Your task to perform on an android device: Look up the best rated headphones on Walmart. Image 0: 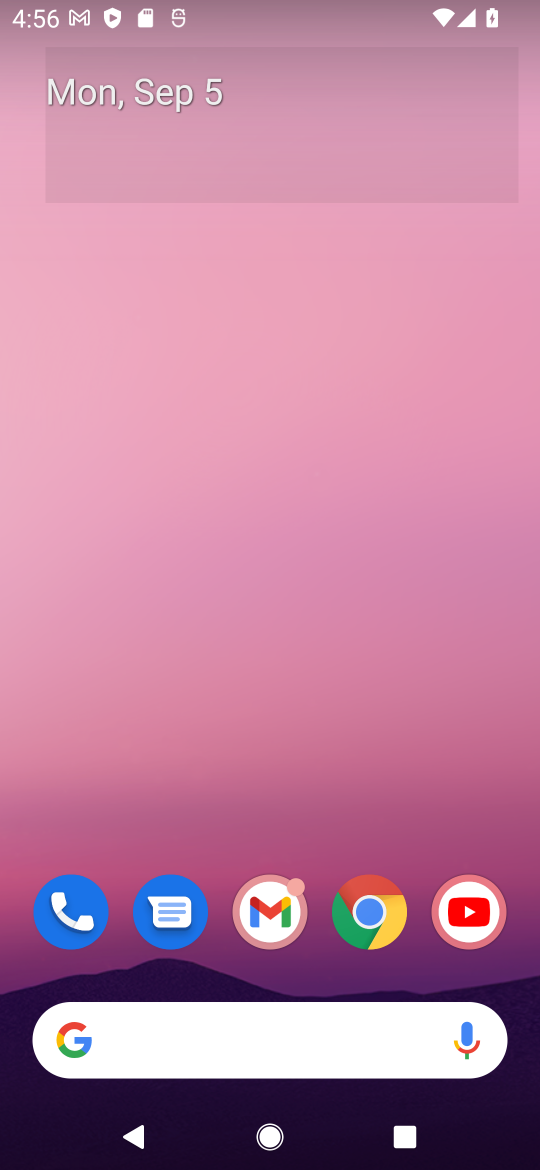
Step 0: click (399, 910)
Your task to perform on an android device: Look up the best rated headphones on Walmart. Image 1: 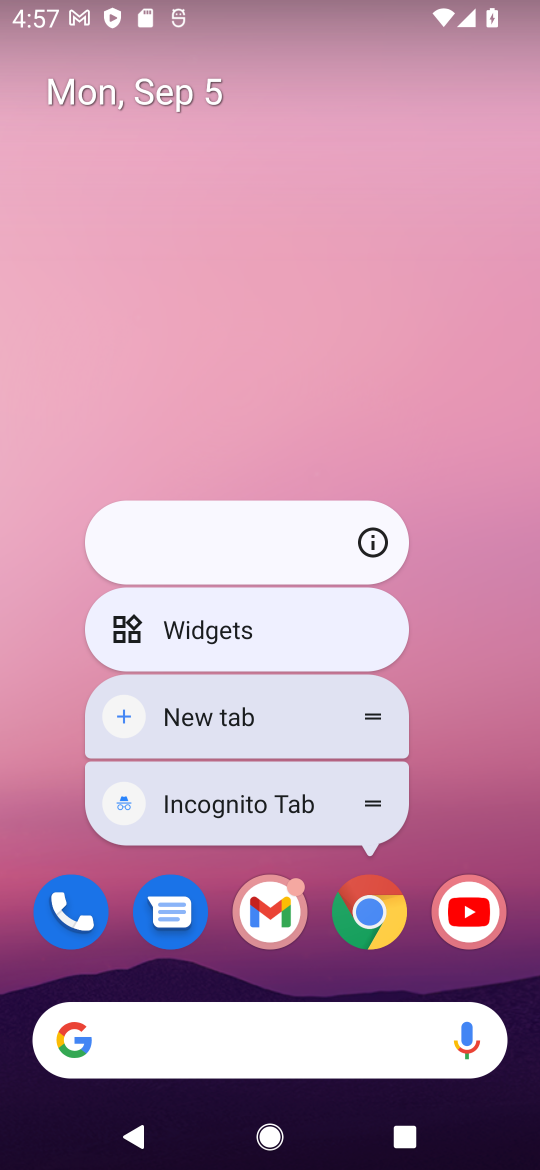
Step 1: click (365, 933)
Your task to perform on an android device: Look up the best rated headphones on Walmart. Image 2: 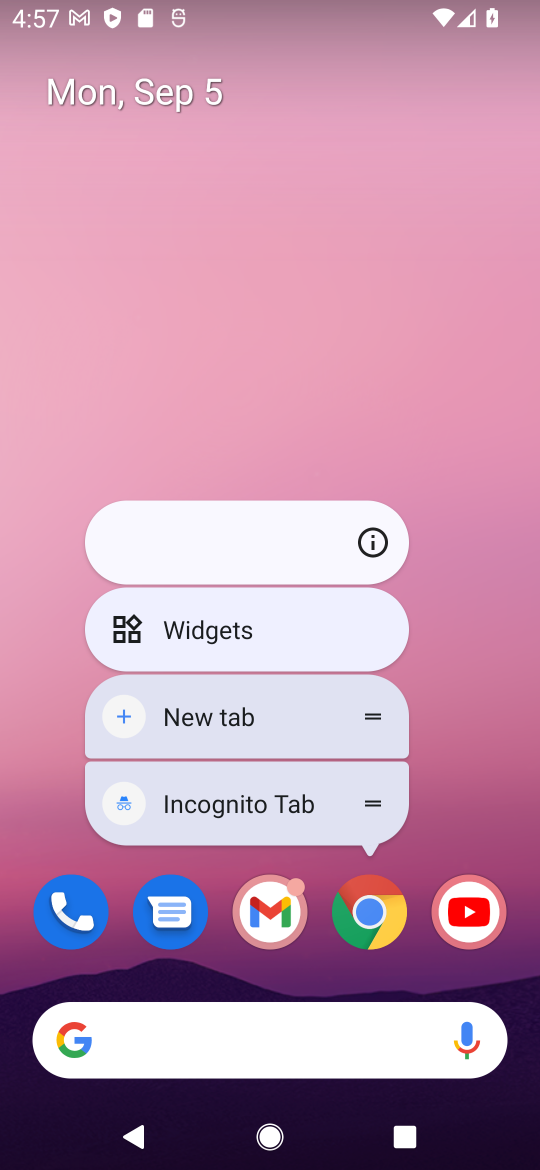
Step 2: click (383, 914)
Your task to perform on an android device: Look up the best rated headphones on Walmart. Image 3: 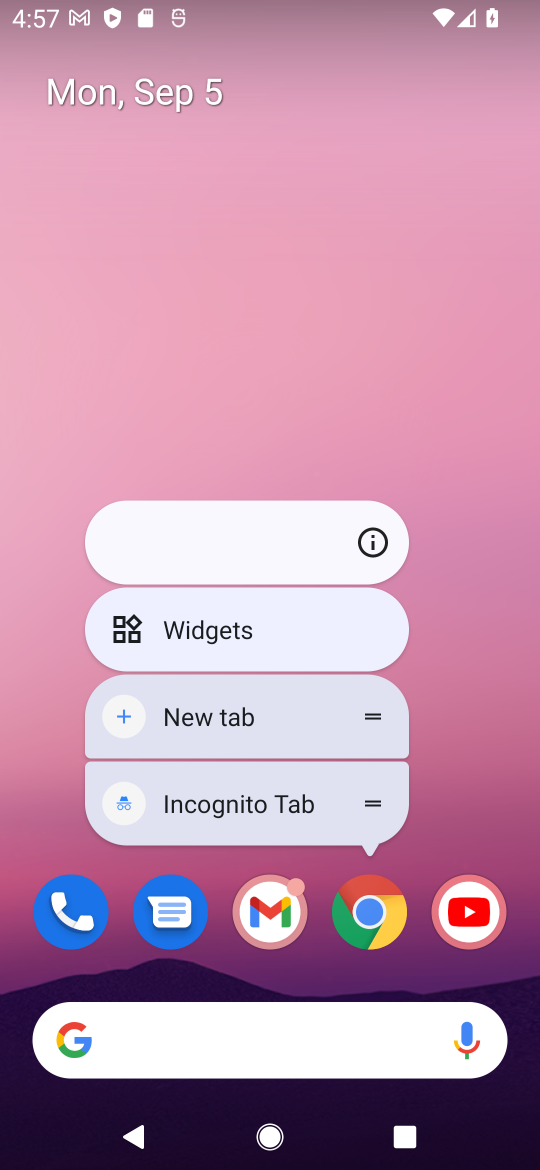
Step 3: click (371, 922)
Your task to perform on an android device: Look up the best rated headphones on Walmart. Image 4: 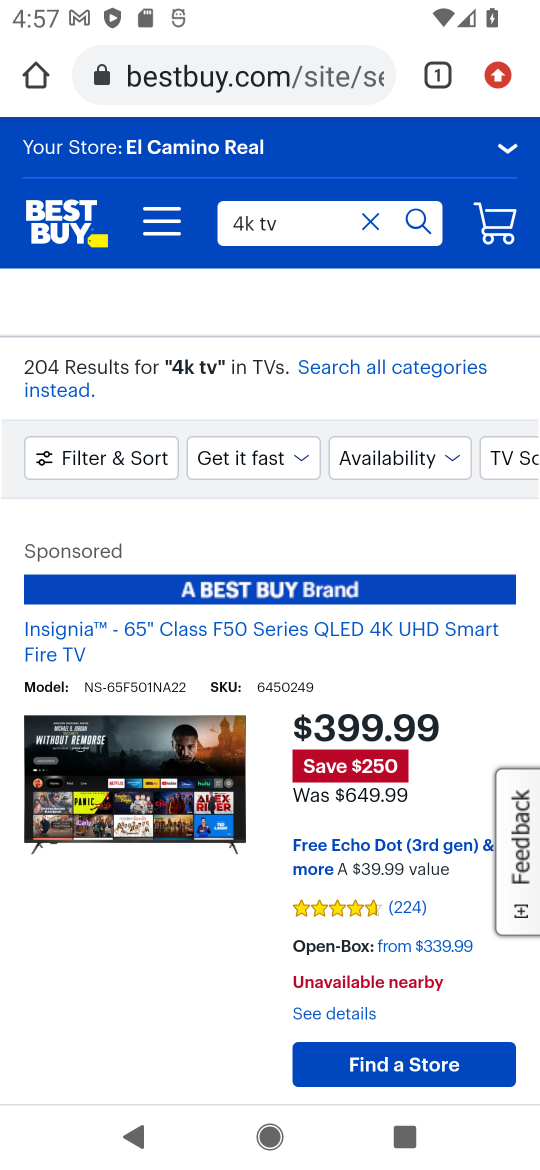
Step 4: click (297, 55)
Your task to perform on an android device: Look up the best rated headphones on Walmart. Image 5: 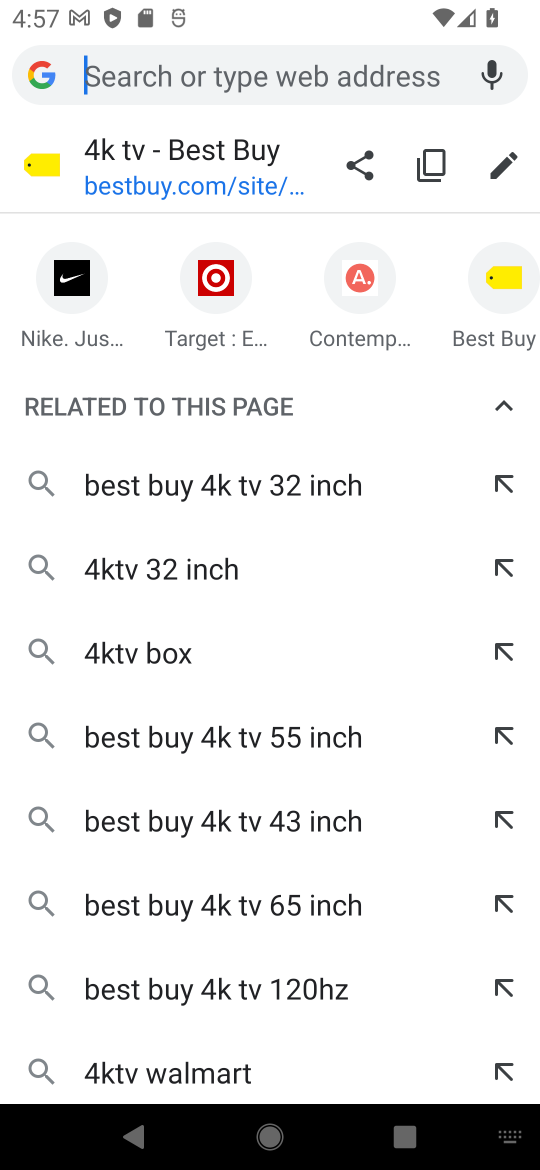
Step 5: type "walmart"
Your task to perform on an android device: Look up the best rated headphones on Walmart. Image 6: 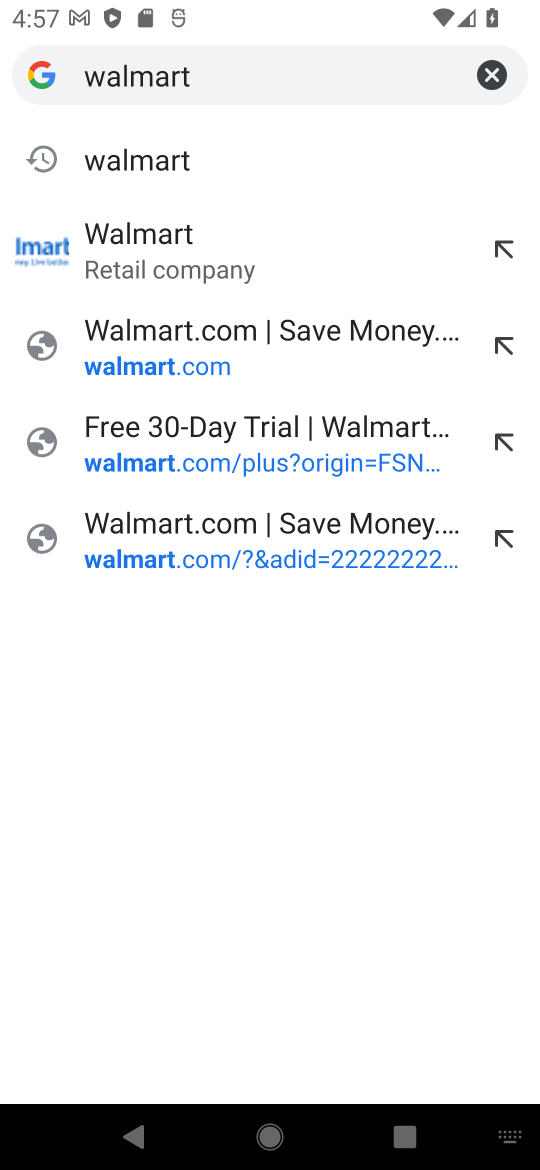
Step 6: press enter
Your task to perform on an android device: Look up the best rated headphones on Walmart. Image 7: 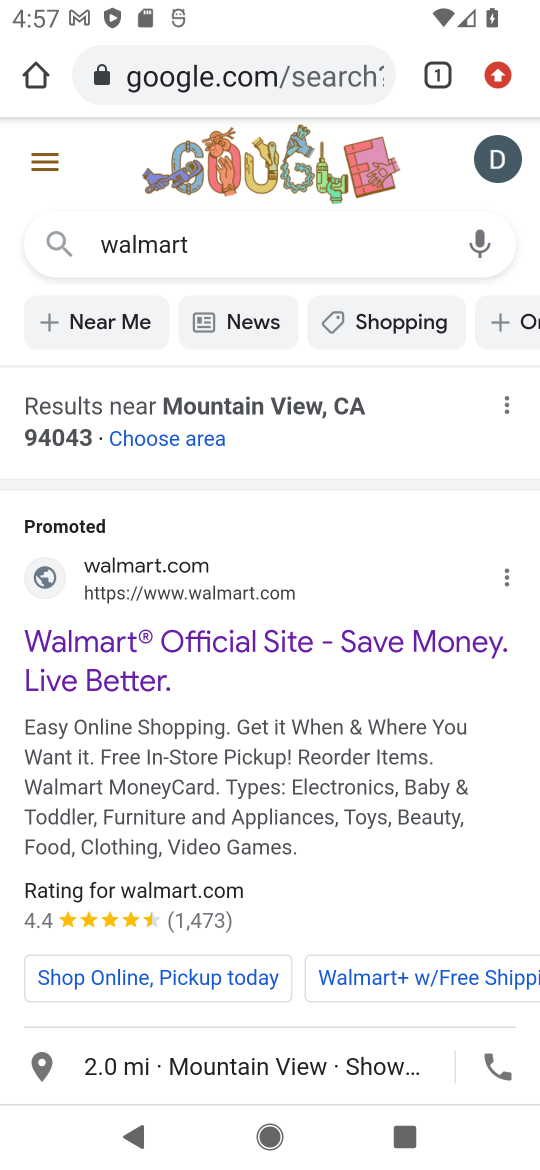
Step 7: click (228, 633)
Your task to perform on an android device: Look up the best rated headphones on Walmart. Image 8: 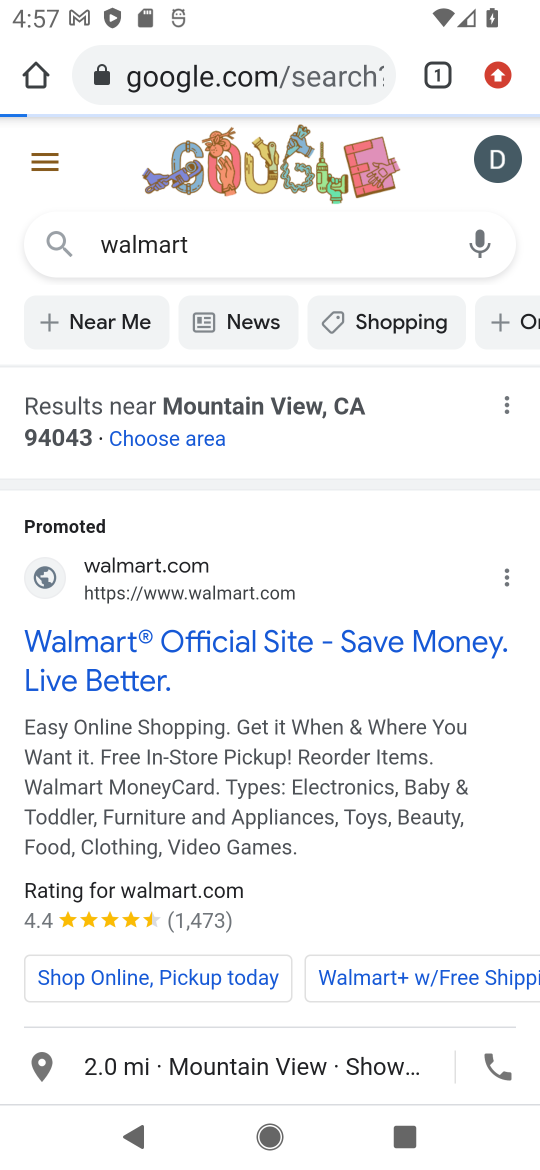
Step 8: click (330, 641)
Your task to perform on an android device: Look up the best rated headphones on Walmart. Image 9: 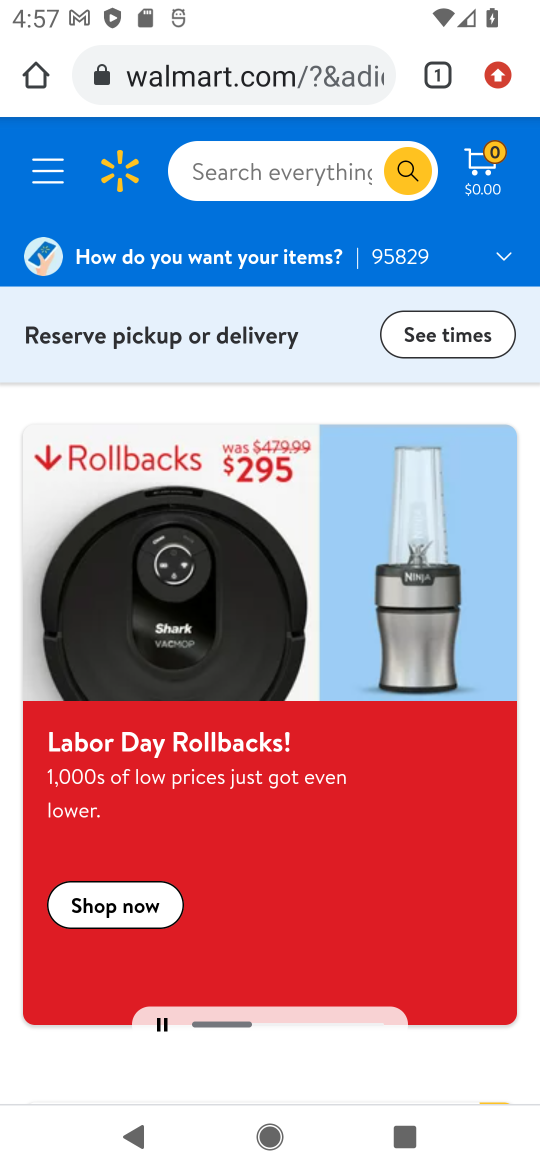
Step 9: click (307, 171)
Your task to perform on an android device: Look up the best rated headphones on Walmart. Image 10: 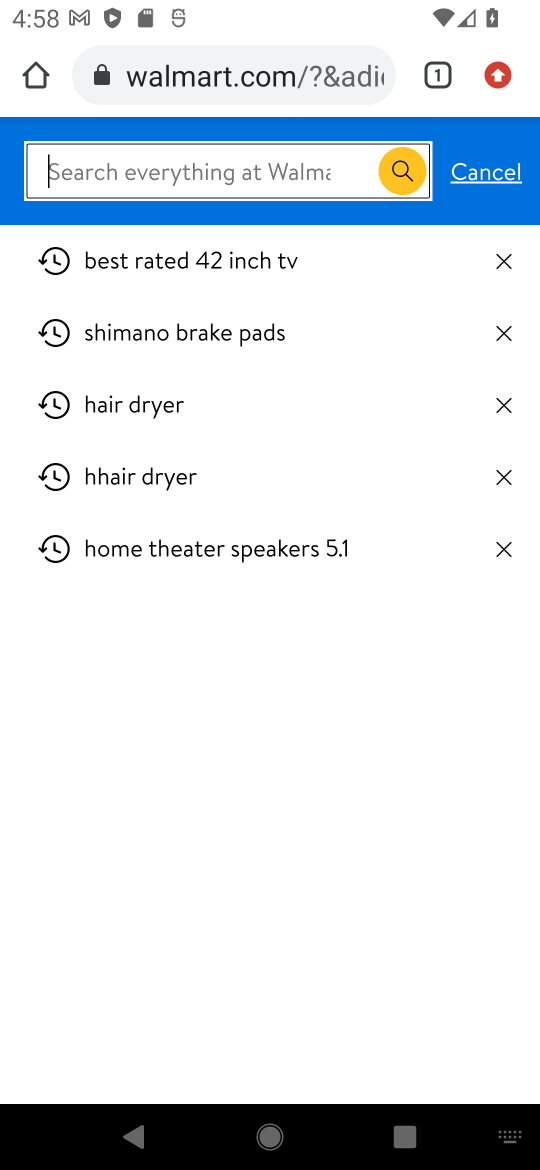
Step 10: type "headphones"
Your task to perform on an android device: Look up the best rated headphones on Walmart. Image 11: 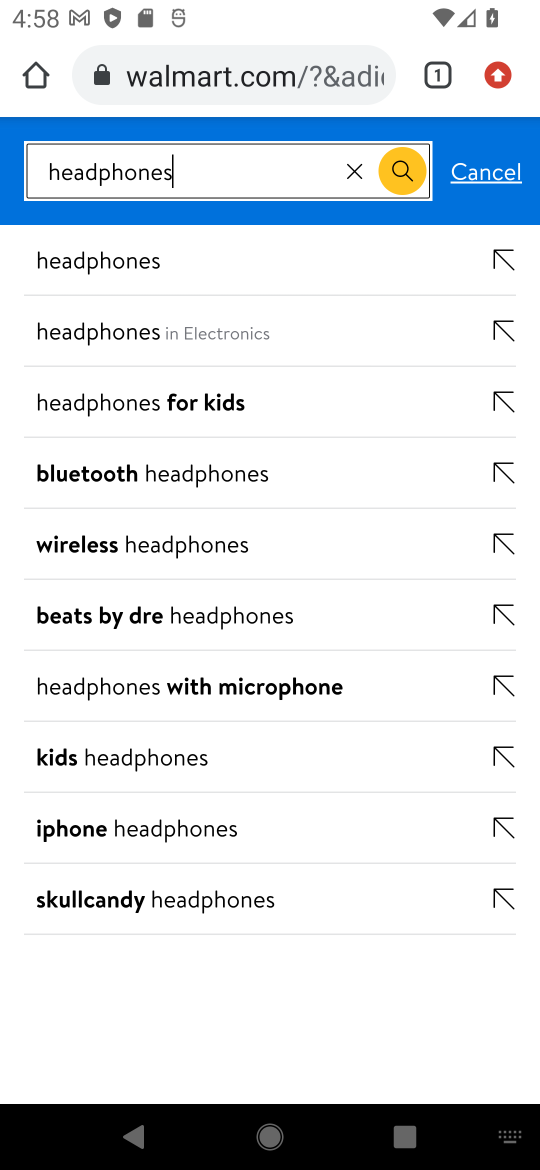
Step 11: press enter
Your task to perform on an android device: Look up the best rated headphones on Walmart. Image 12: 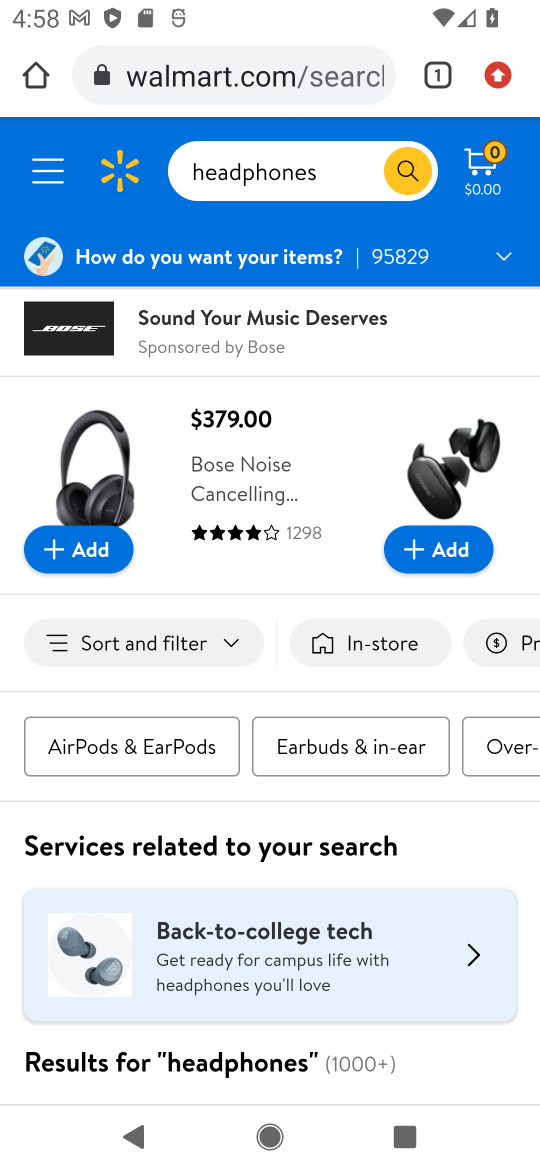
Step 12: click (157, 658)
Your task to perform on an android device: Look up the best rated headphones on Walmart. Image 13: 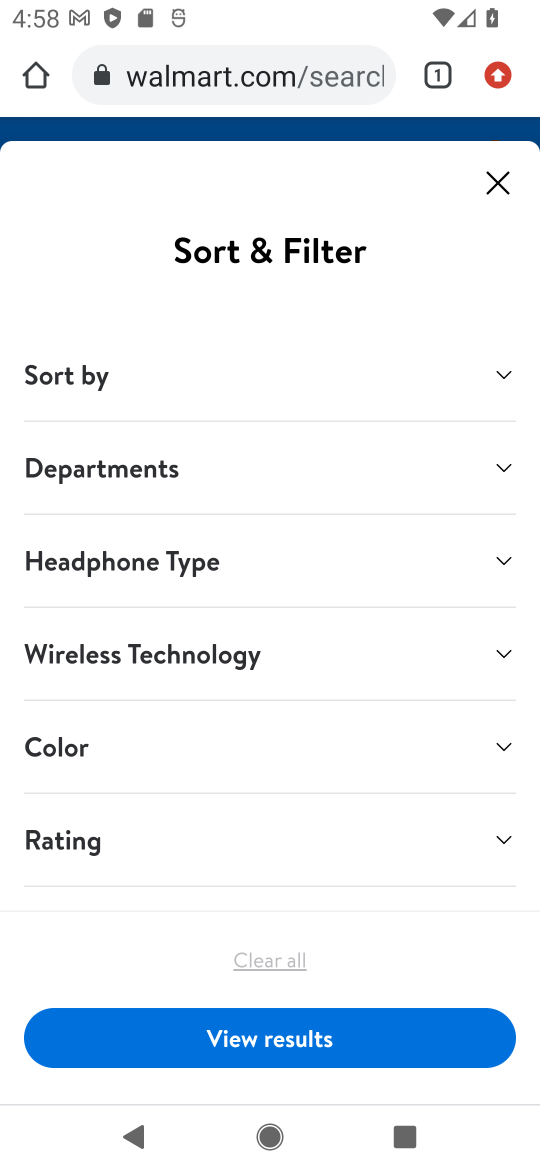
Step 13: click (166, 848)
Your task to perform on an android device: Look up the best rated headphones on Walmart. Image 14: 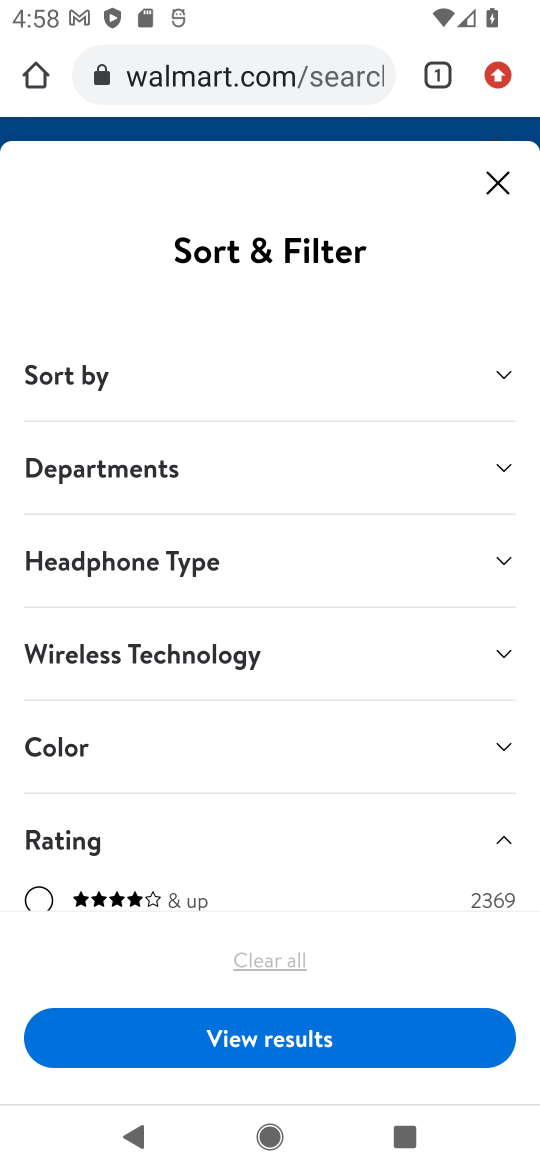
Step 14: click (169, 903)
Your task to perform on an android device: Look up the best rated headphones on Walmart. Image 15: 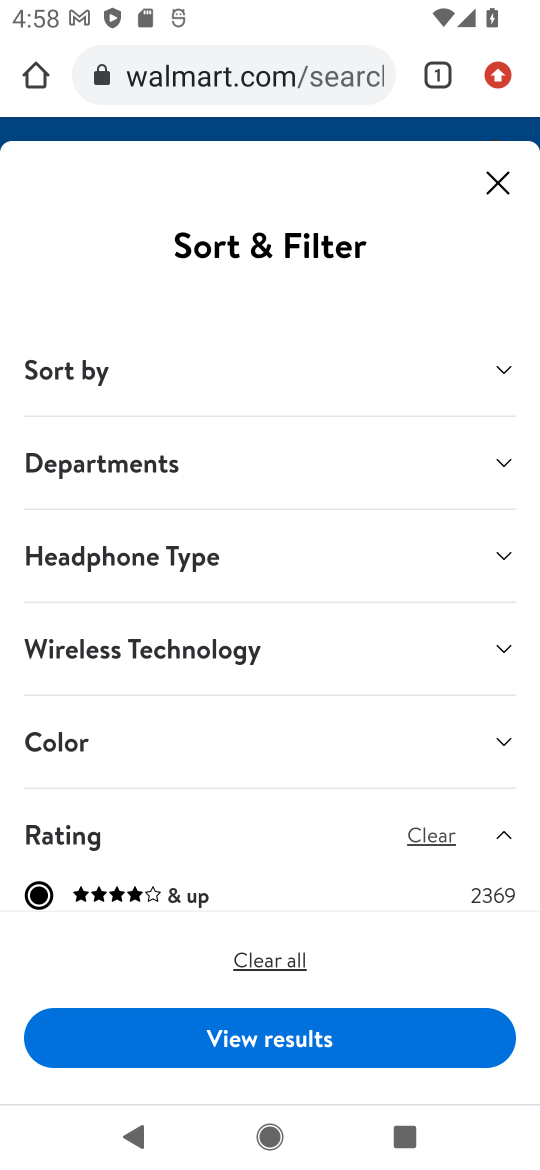
Step 15: click (280, 1055)
Your task to perform on an android device: Look up the best rated headphones on Walmart. Image 16: 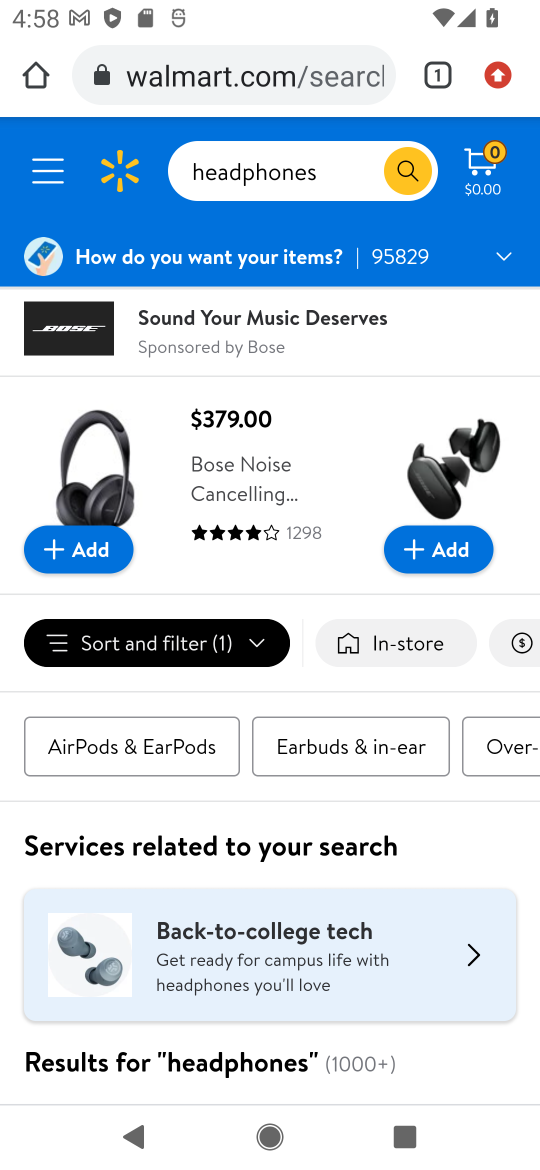
Step 16: task complete